Your task to perform on an android device: Open Yahoo.com Image 0: 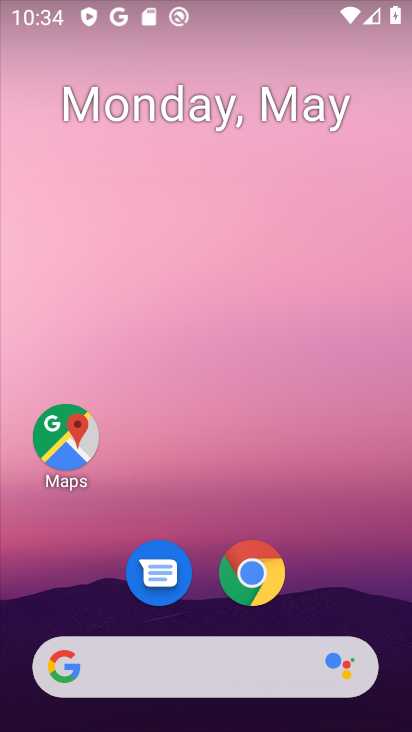
Step 0: click (260, 580)
Your task to perform on an android device: Open Yahoo.com Image 1: 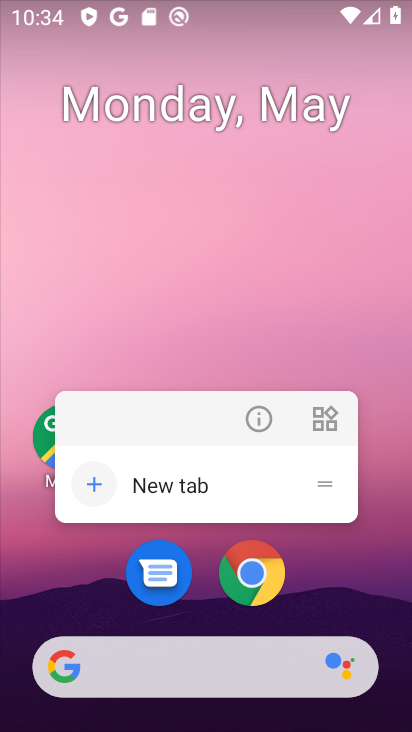
Step 1: click (244, 583)
Your task to perform on an android device: Open Yahoo.com Image 2: 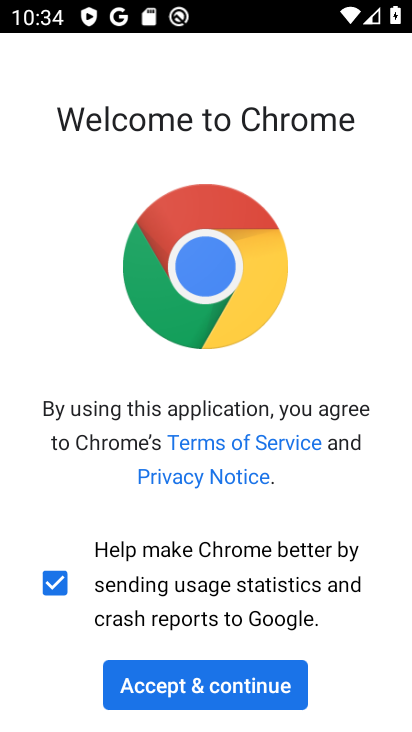
Step 2: click (214, 674)
Your task to perform on an android device: Open Yahoo.com Image 3: 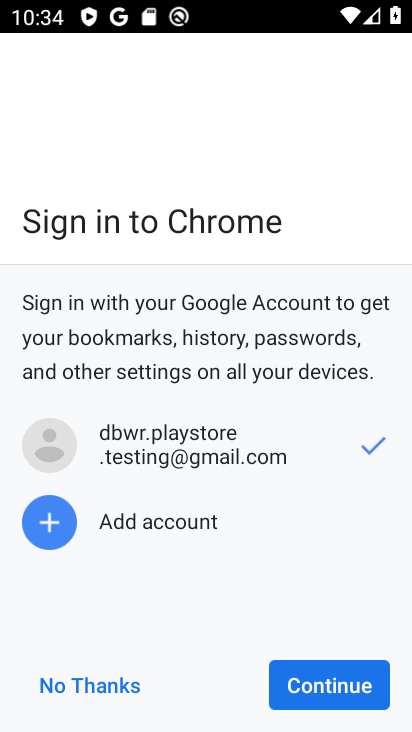
Step 3: click (359, 676)
Your task to perform on an android device: Open Yahoo.com Image 4: 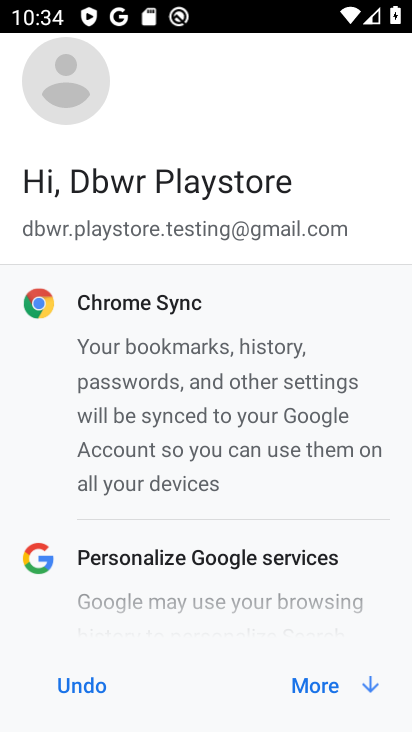
Step 4: click (309, 685)
Your task to perform on an android device: Open Yahoo.com Image 5: 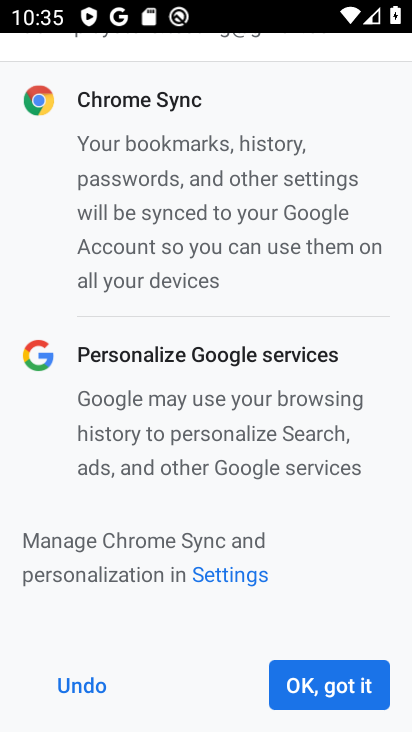
Step 5: click (343, 677)
Your task to perform on an android device: Open Yahoo.com Image 6: 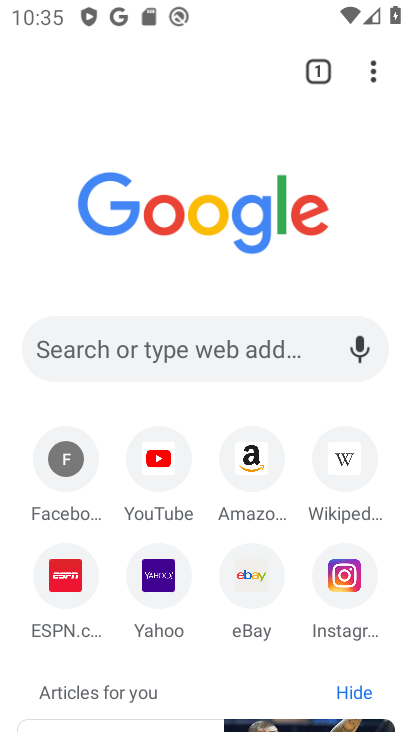
Step 6: click (157, 590)
Your task to perform on an android device: Open Yahoo.com Image 7: 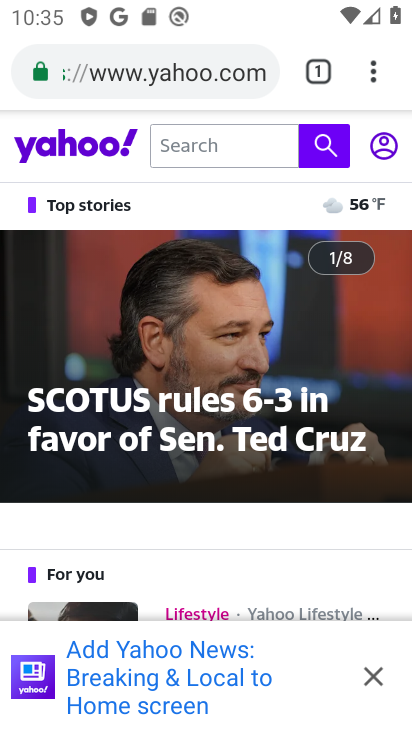
Step 7: task complete